Your task to perform on an android device: change notification settings in the gmail app Image 0: 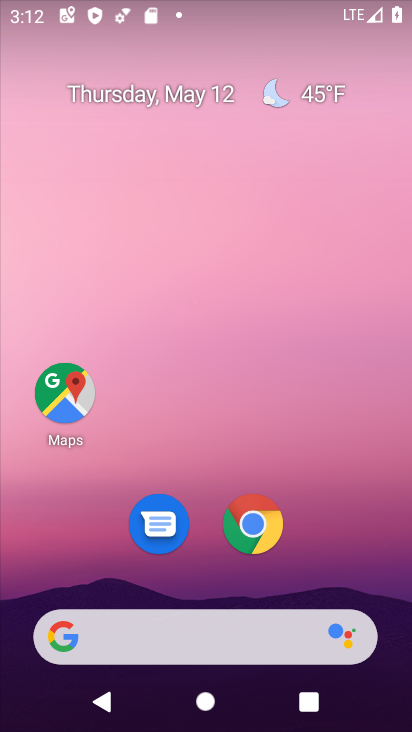
Step 0: drag from (220, 436) to (279, 0)
Your task to perform on an android device: change notification settings in the gmail app Image 1: 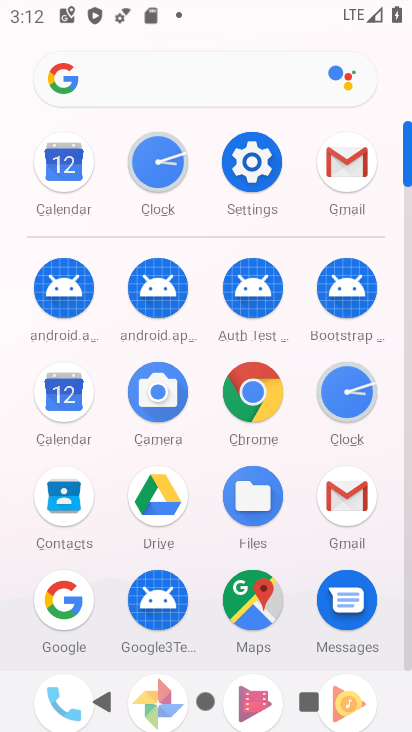
Step 1: click (336, 161)
Your task to perform on an android device: change notification settings in the gmail app Image 2: 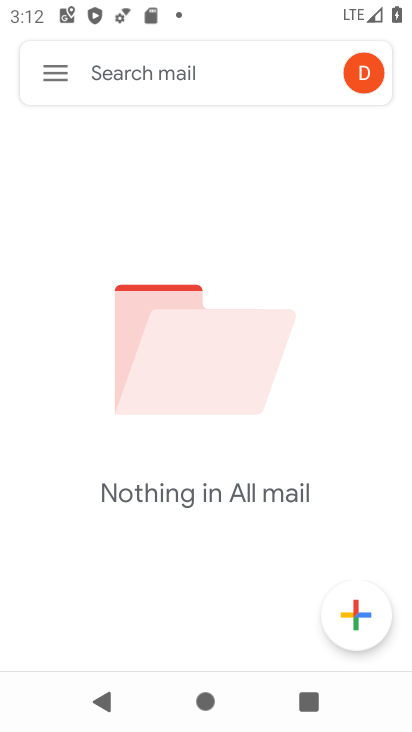
Step 2: click (58, 72)
Your task to perform on an android device: change notification settings in the gmail app Image 3: 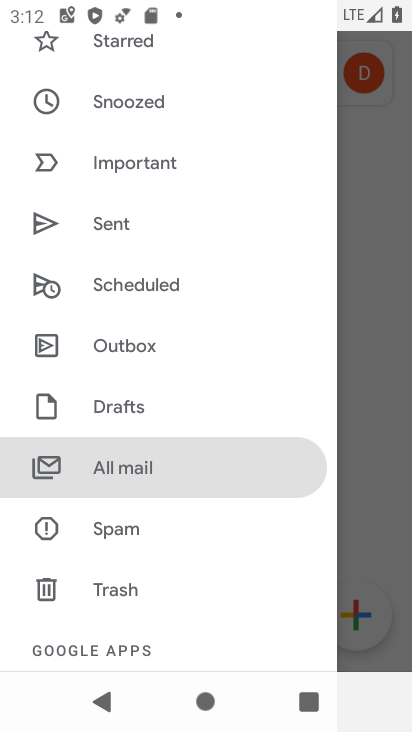
Step 3: drag from (189, 592) to (214, 68)
Your task to perform on an android device: change notification settings in the gmail app Image 4: 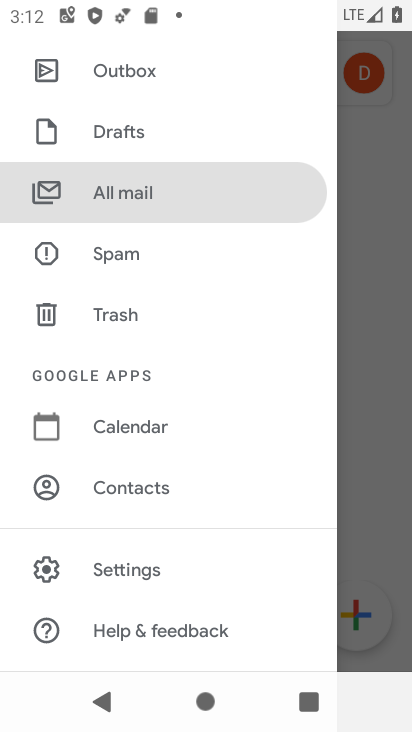
Step 4: click (139, 573)
Your task to perform on an android device: change notification settings in the gmail app Image 5: 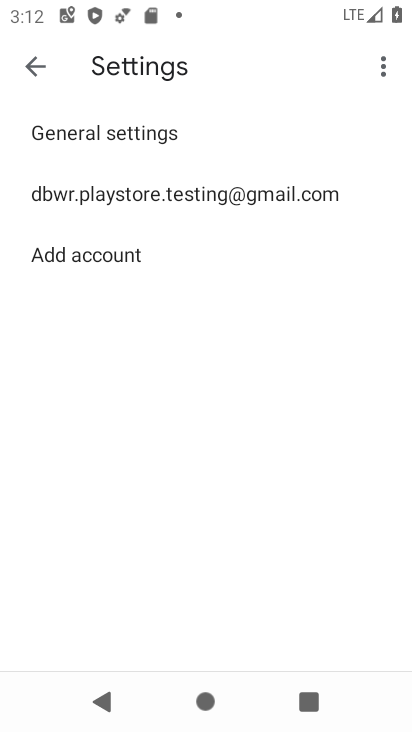
Step 5: click (151, 134)
Your task to perform on an android device: change notification settings in the gmail app Image 6: 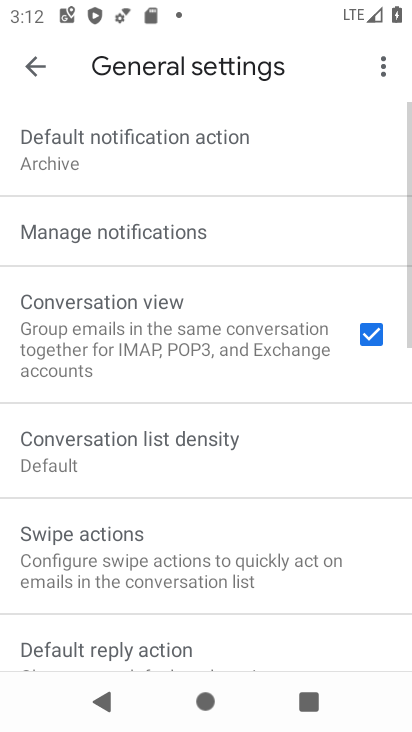
Step 6: click (173, 223)
Your task to perform on an android device: change notification settings in the gmail app Image 7: 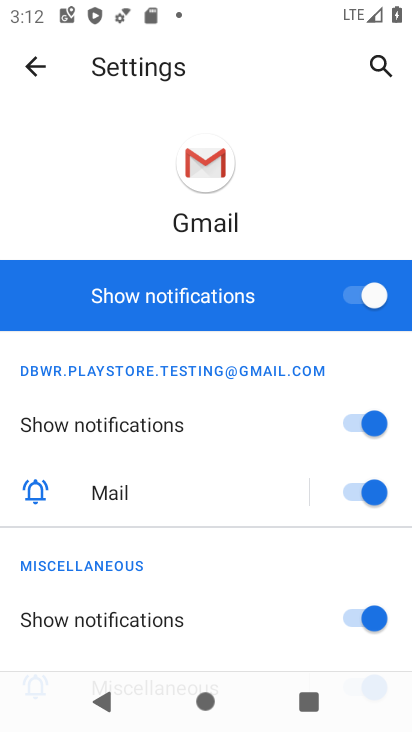
Step 7: click (352, 293)
Your task to perform on an android device: change notification settings in the gmail app Image 8: 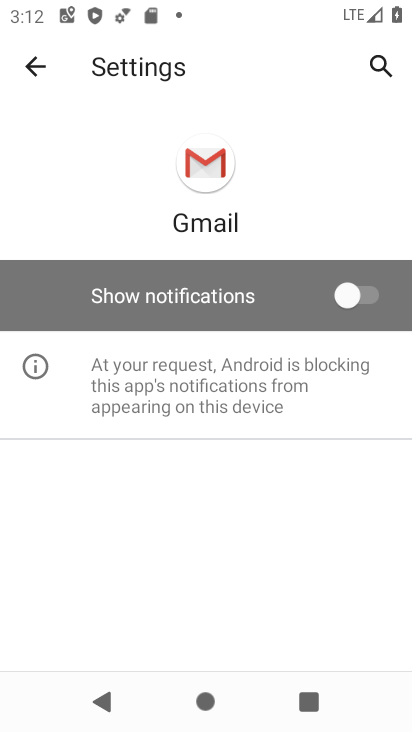
Step 8: task complete